Your task to perform on an android device: turn off javascript in the chrome app Image 0: 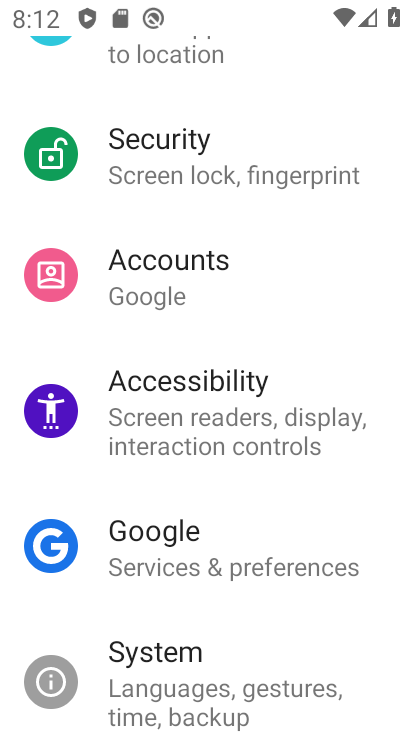
Step 0: press home button
Your task to perform on an android device: turn off javascript in the chrome app Image 1: 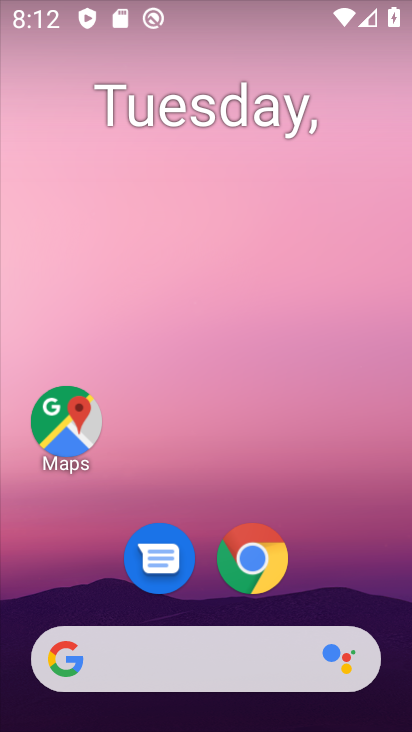
Step 1: click (236, 573)
Your task to perform on an android device: turn off javascript in the chrome app Image 2: 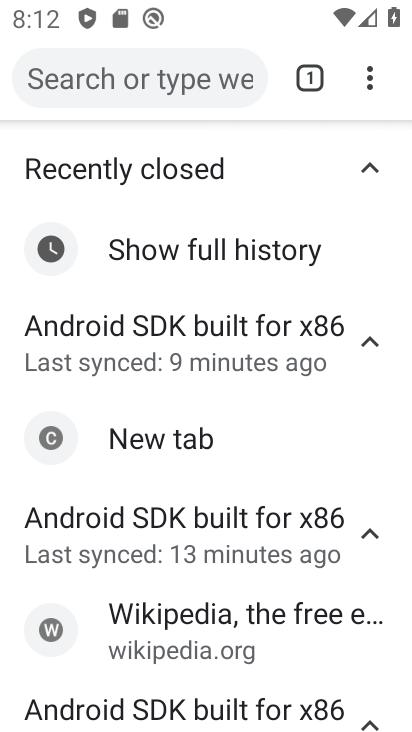
Step 2: drag from (370, 75) to (146, 614)
Your task to perform on an android device: turn off javascript in the chrome app Image 3: 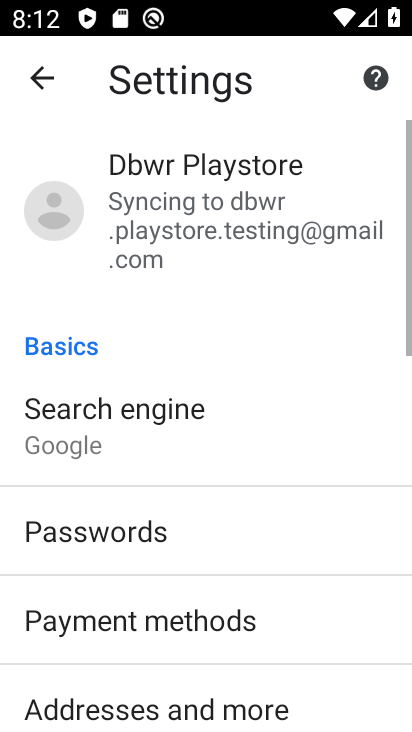
Step 3: drag from (263, 621) to (280, 292)
Your task to perform on an android device: turn off javascript in the chrome app Image 4: 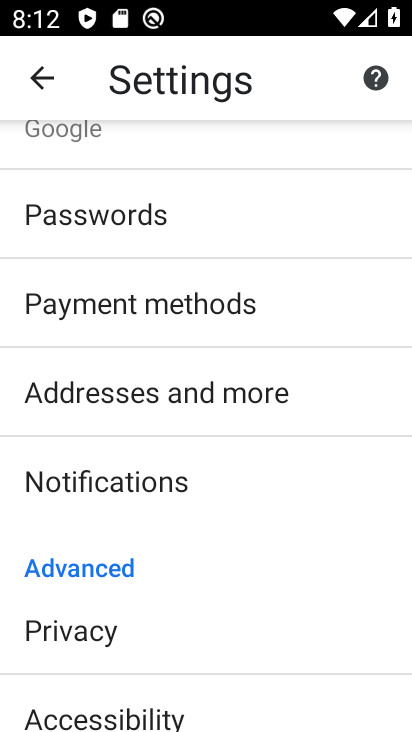
Step 4: drag from (239, 564) to (253, 258)
Your task to perform on an android device: turn off javascript in the chrome app Image 5: 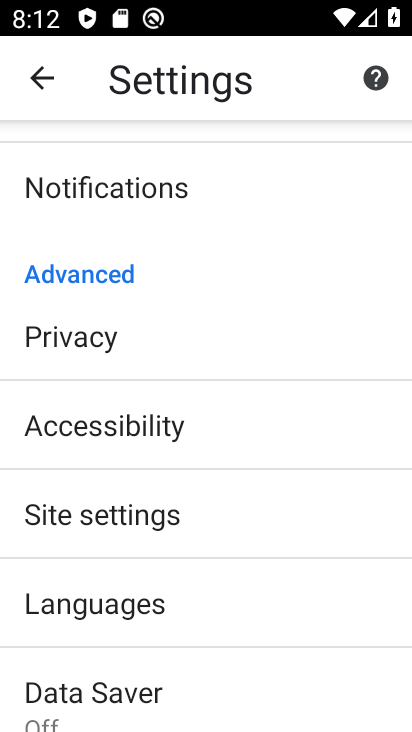
Step 5: drag from (183, 586) to (204, 384)
Your task to perform on an android device: turn off javascript in the chrome app Image 6: 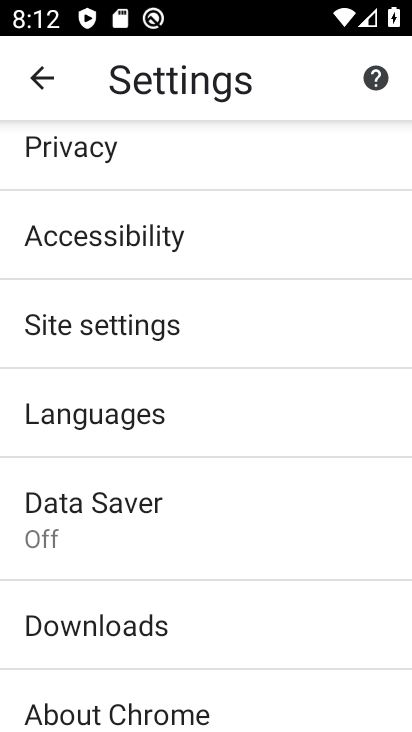
Step 6: click (160, 336)
Your task to perform on an android device: turn off javascript in the chrome app Image 7: 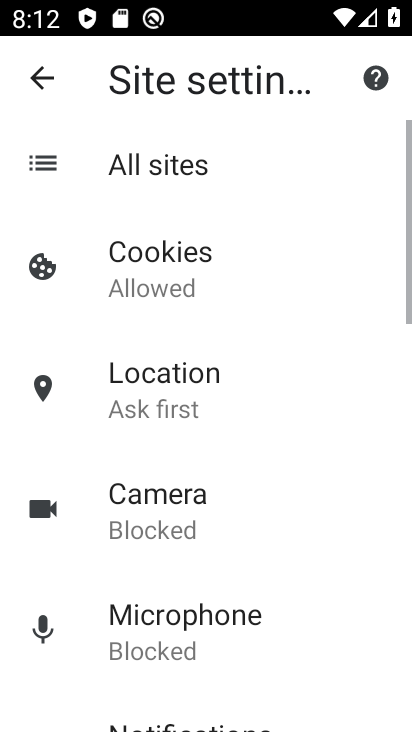
Step 7: drag from (202, 596) to (222, 304)
Your task to perform on an android device: turn off javascript in the chrome app Image 8: 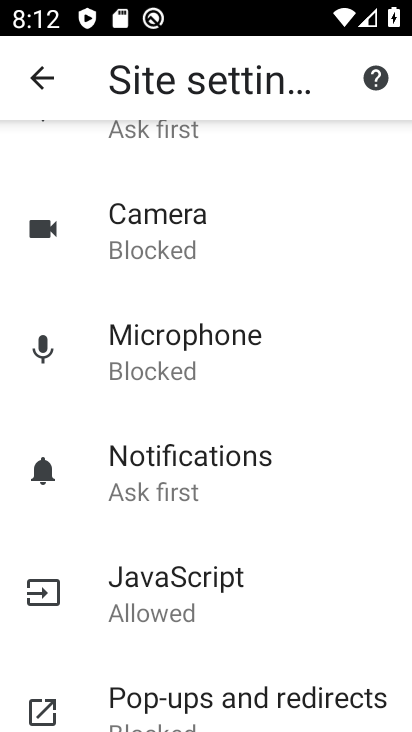
Step 8: click (175, 581)
Your task to perform on an android device: turn off javascript in the chrome app Image 9: 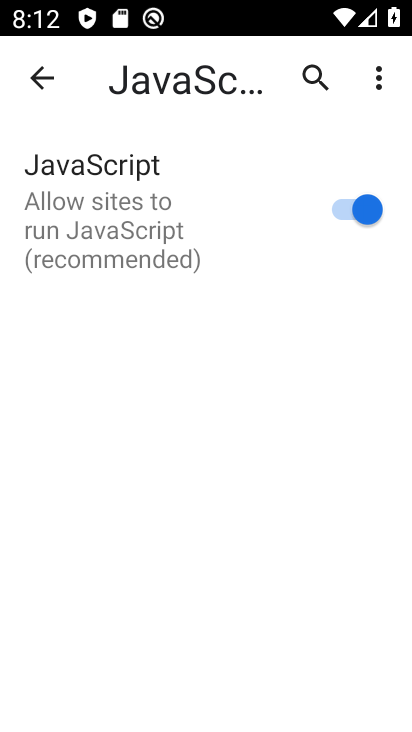
Step 9: click (332, 209)
Your task to perform on an android device: turn off javascript in the chrome app Image 10: 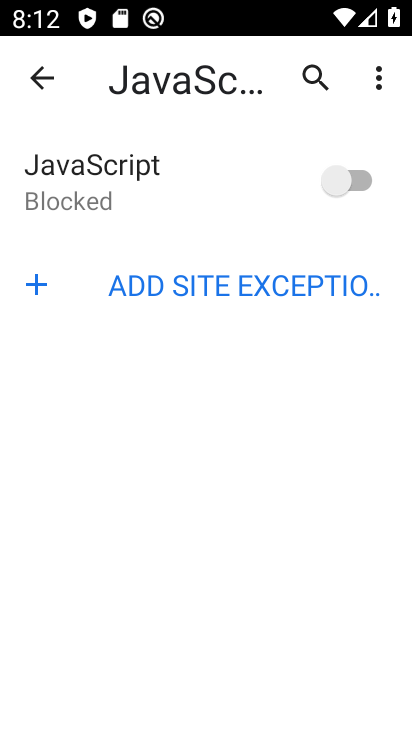
Step 10: task complete